Your task to perform on an android device: check out phone information Image 0: 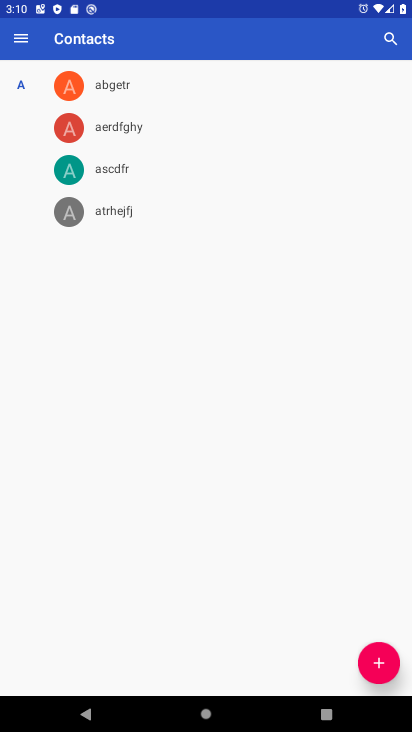
Step 0: press home button
Your task to perform on an android device: check out phone information Image 1: 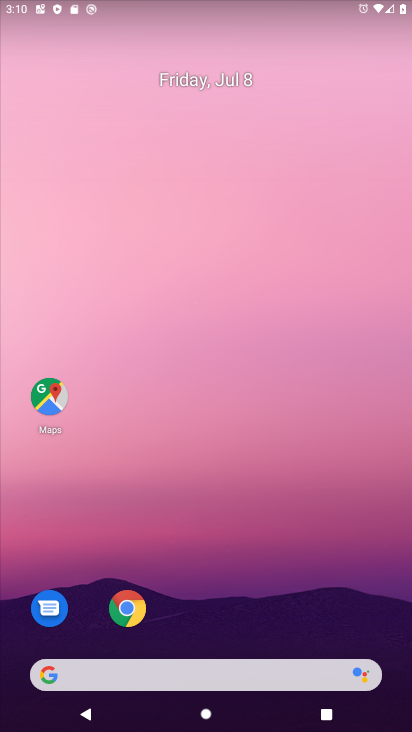
Step 1: drag from (241, 559) to (359, 206)
Your task to perform on an android device: check out phone information Image 2: 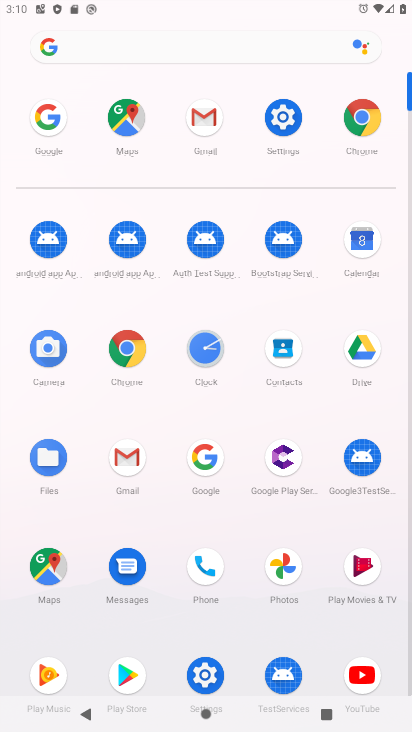
Step 2: click (285, 122)
Your task to perform on an android device: check out phone information Image 3: 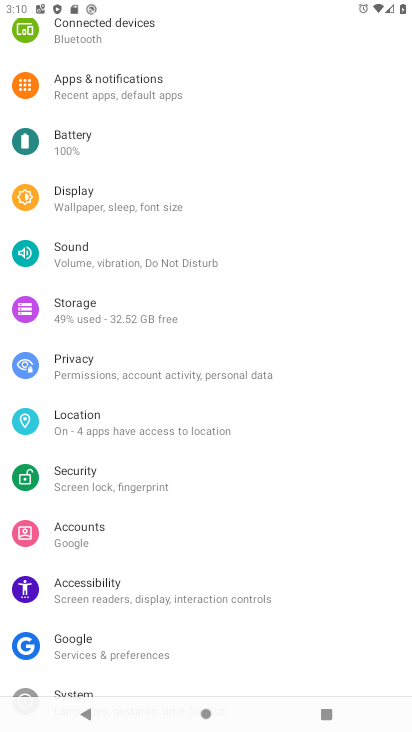
Step 3: drag from (146, 647) to (155, 82)
Your task to perform on an android device: check out phone information Image 4: 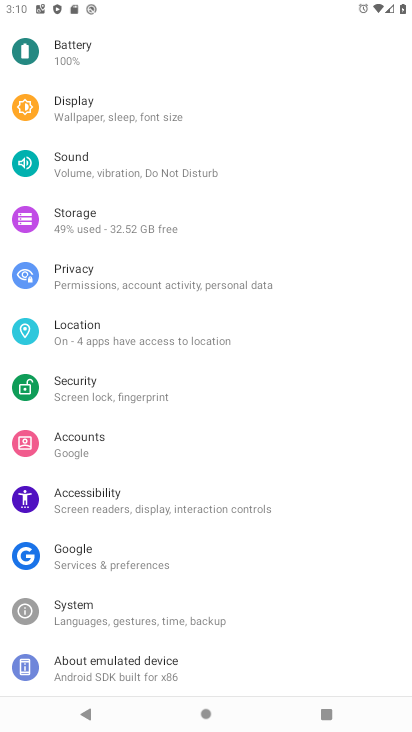
Step 4: click (148, 677)
Your task to perform on an android device: check out phone information Image 5: 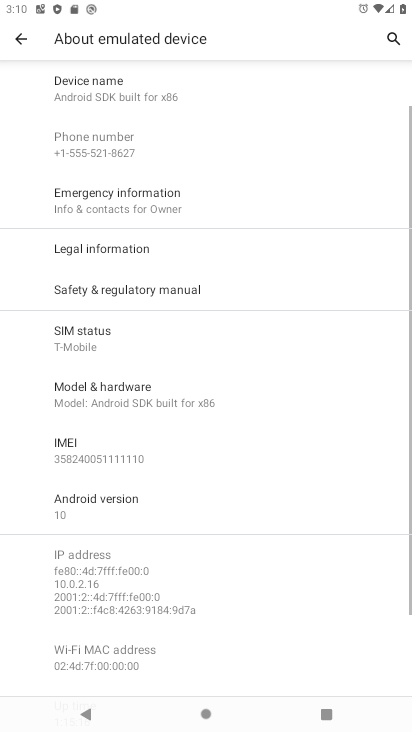
Step 5: task complete